Your task to perform on an android device: Go to Wikipedia Image 0: 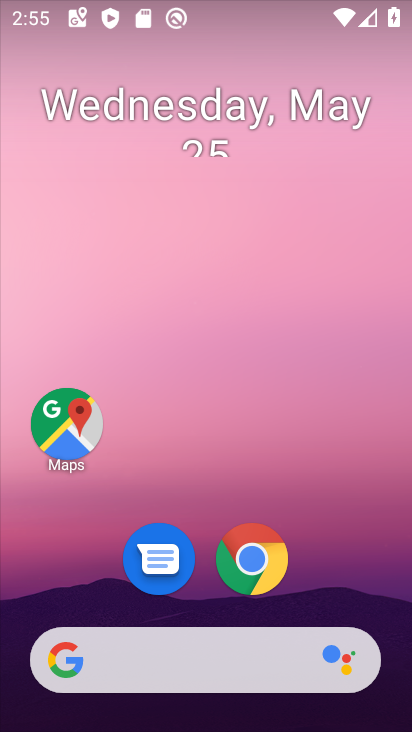
Step 0: click (246, 552)
Your task to perform on an android device: Go to Wikipedia Image 1: 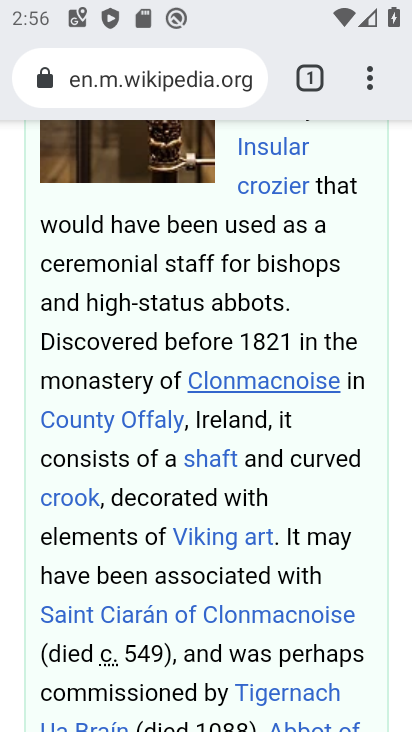
Step 1: drag from (193, 651) to (221, 244)
Your task to perform on an android device: Go to Wikipedia Image 2: 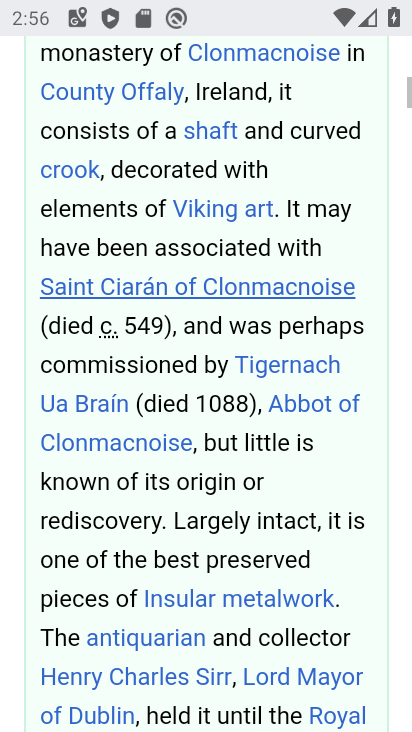
Step 2: click (225, 171)
Your task to perform on an android device: Go to Wikipedia Image 3: 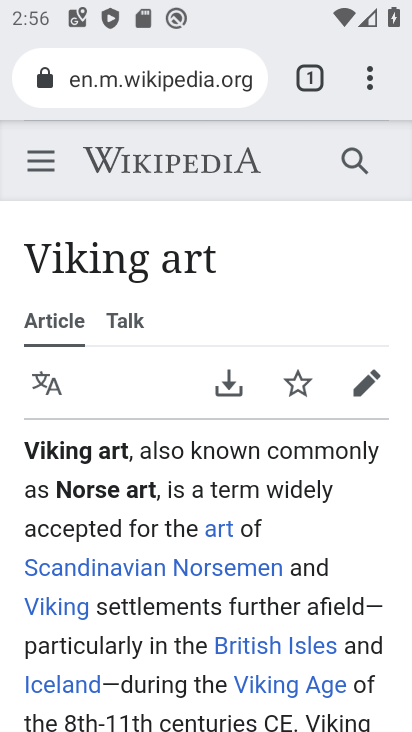
Step 3: task complete